Your task to perform on an android device: turn on translation in the chrome app Image 0: 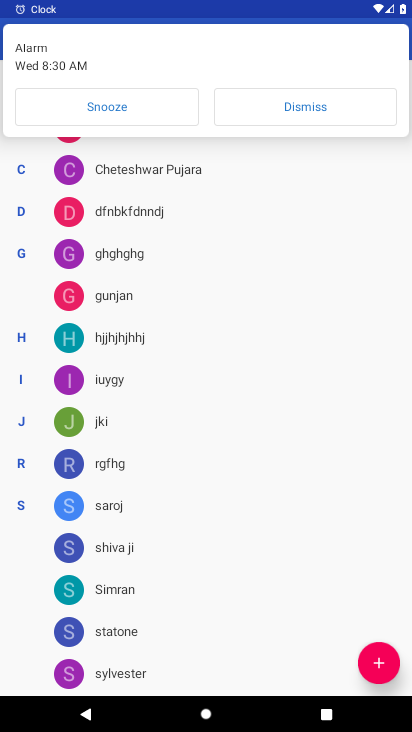
Step 0: press home button
Your task to perform on an android device: turn on translation in the chrome app Image 1: 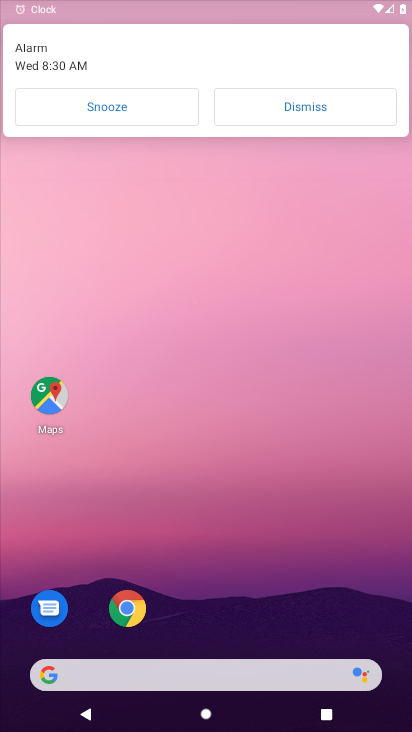
Step 1: drag from (227, 608) to (289, 209)
Your task to perform on an android device: turn on translation in the chrome app Image 2: 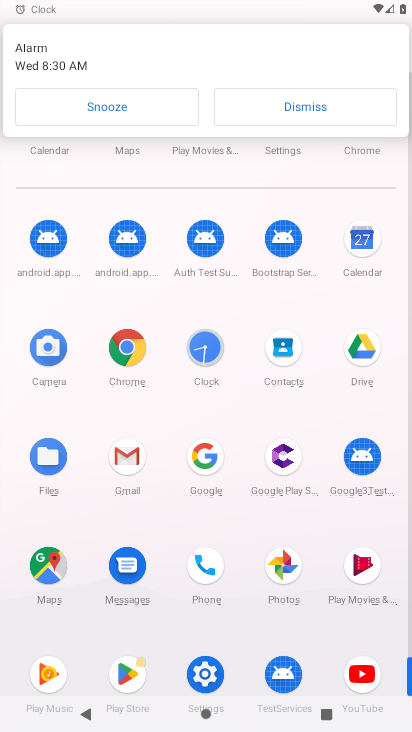
Step 2: click (296, 105)
Your task to perform on an android device: turn on translation in the chrome app Image 3: 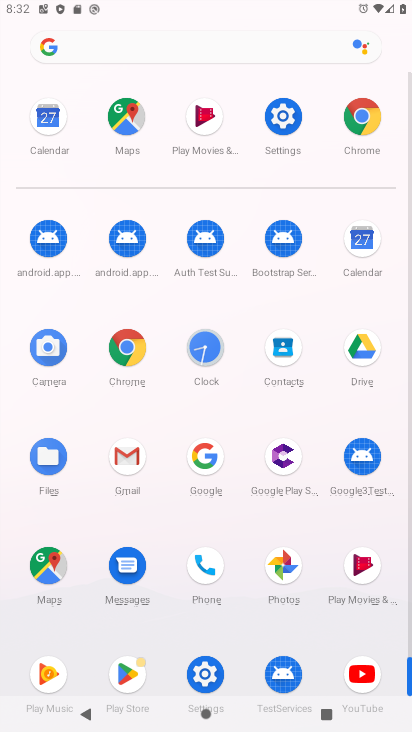
Step 3: click (111, 340)
Your task to perform on an android device: turn on translation in the chrome app Image 4: 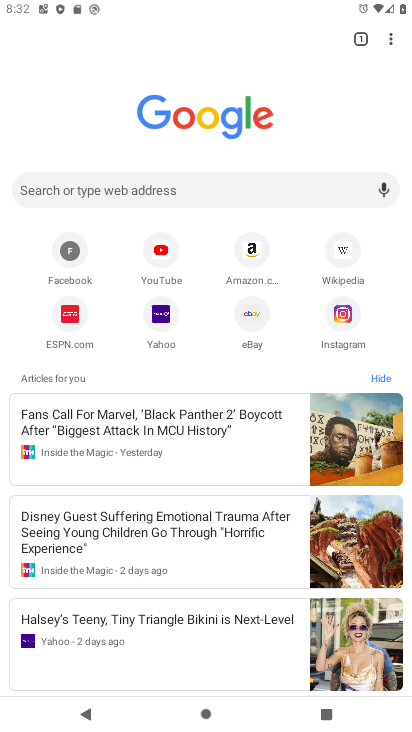
Step 4: click (389, 37)
Your task to perform on an android device: turn on translation in the chrome app Image 5: 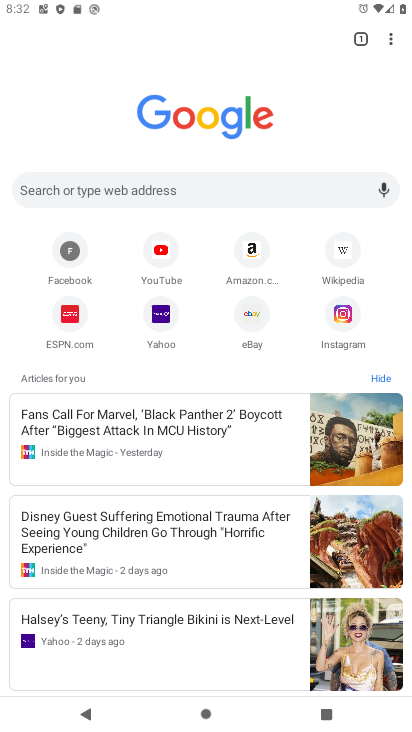
Step 5: click (400, 38)
Your task to perform on an android device: turn on translation in the chrome app Image 6: 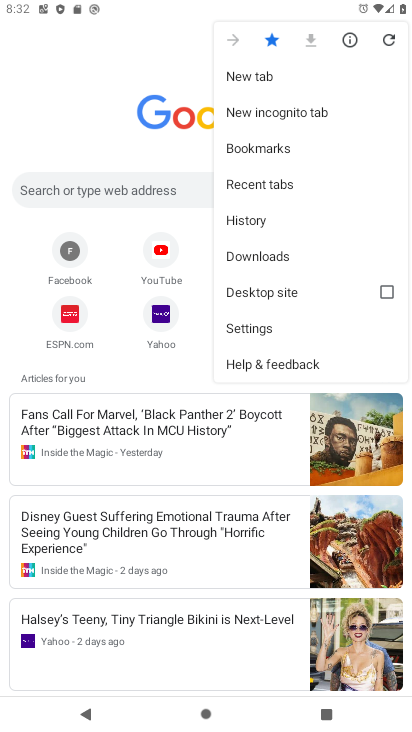
Step 6: click (263, 324)
Your task to perform on an android device: turn on translation in the chrome app Image 7: 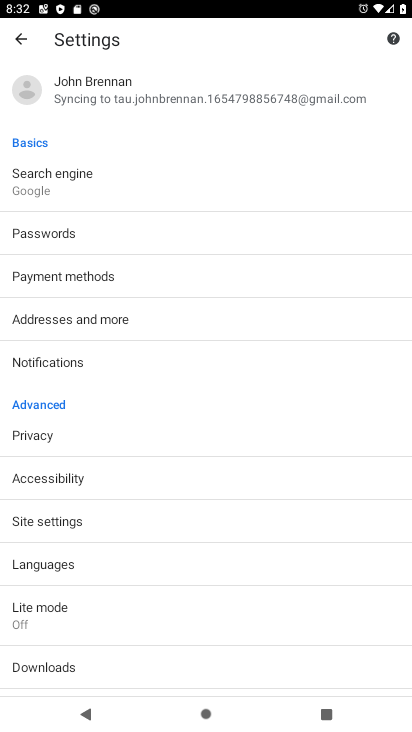
Step 7: task complete